Your task to perform on an android device: Clear all items from cart on target. Add "alienware aurora" to the cart on target, then select checkout. Image 0: 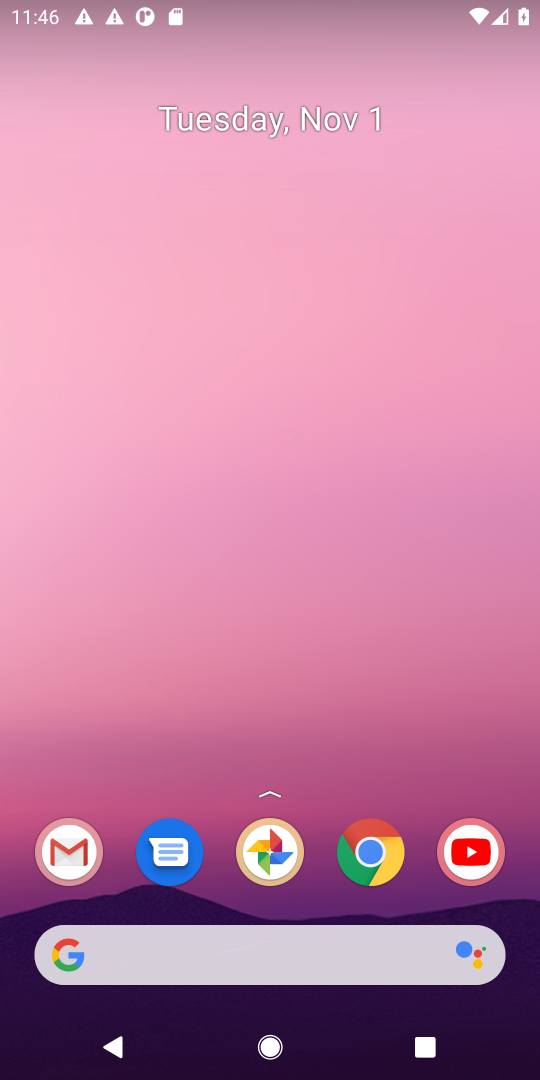
Step 0: click (67, 958)
Your task to perform on an android device: Clear all items from cart on target. Add "alienware aurora" to the cart on target, then select checkout. Image 1: 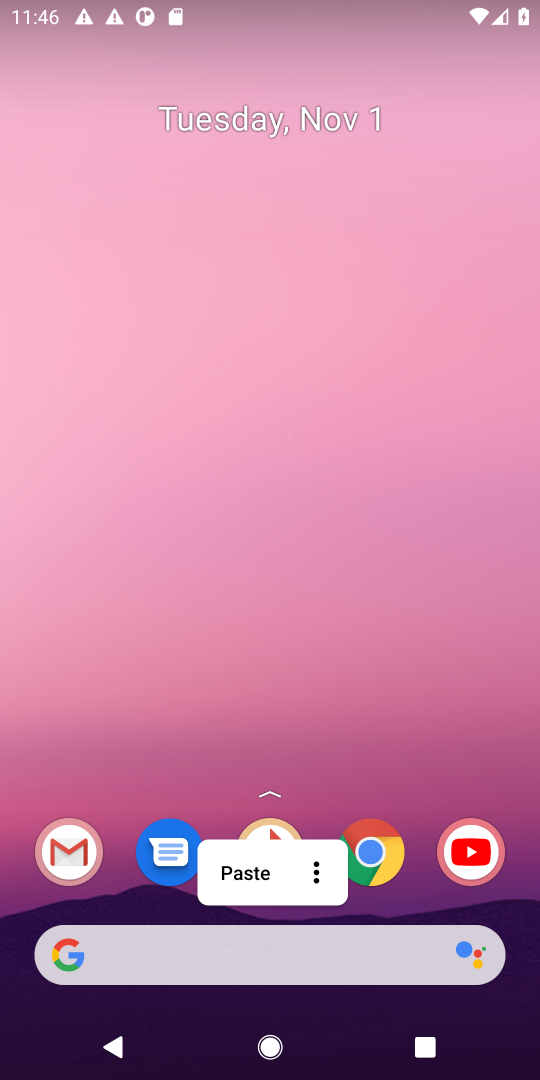
Step 1: click (55, 967)
Your task to perform on an android device: Clear all items from cart on target. Add "alienware aurora" to the cart on target, then select checkout. Image 2: 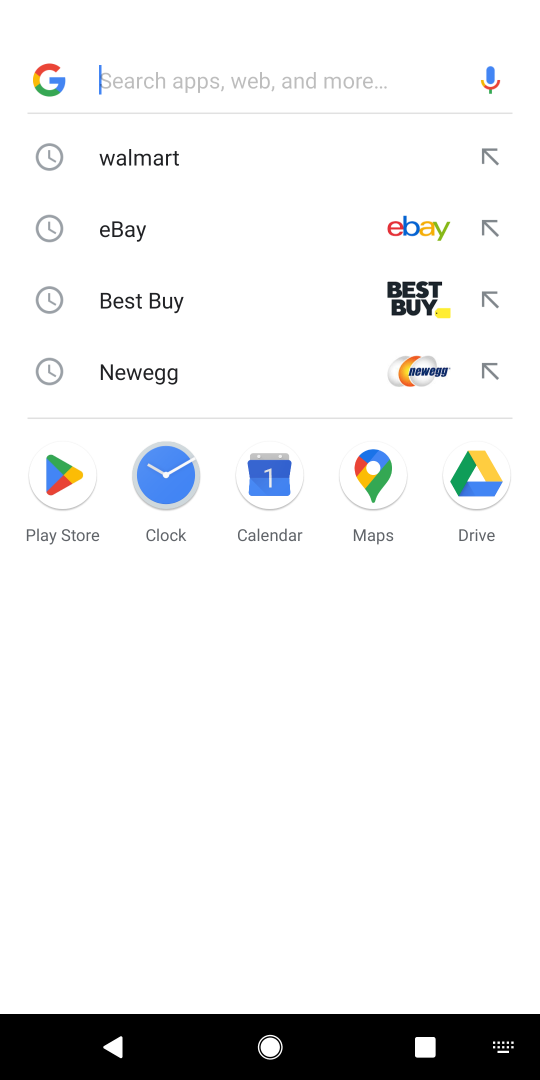
Step 2: type "target"
Your task to perform on an android device: Clear all items from cart on target. Add "alienware aurora" to the cart on target, then select checkout. Image 3: 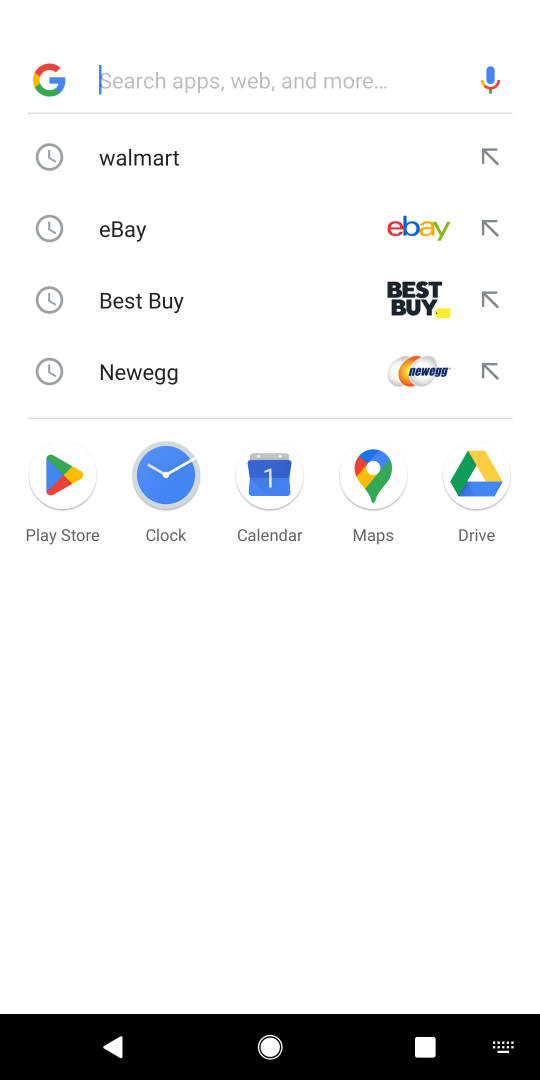
Step 3: click (120, 78)
Your task to perform on an android device: Clear all items from cart on target. Add "alienware aurora" to the cart on target, then select checkout. Image 4: 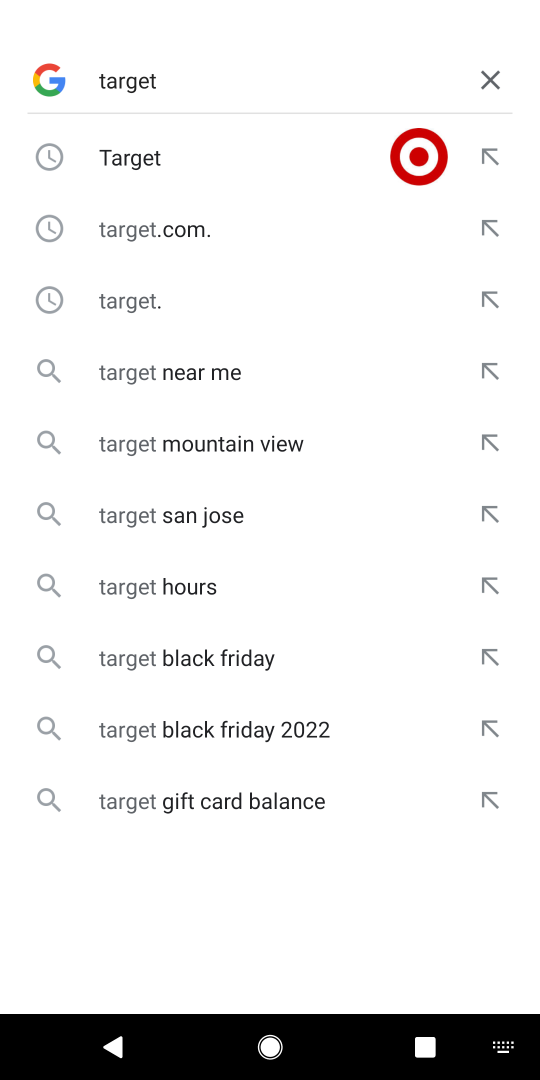
Step 4: click (128, 147)
Your task to perform on an android device: Clear all items from cart on target. Add "alienware aurora" to the cart on target, then select checkout. Image 5: 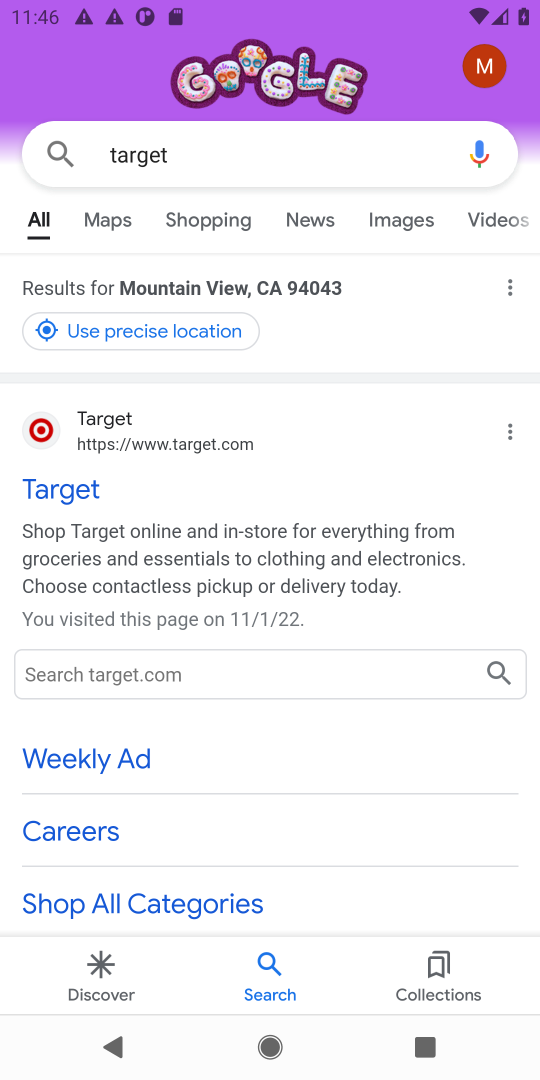
Step 5: click (190, 154)
Your task to perform on an android device: Clear all items from cart on target. Add "alienware aurora" to the cart on target, then select checkout. Image 6: 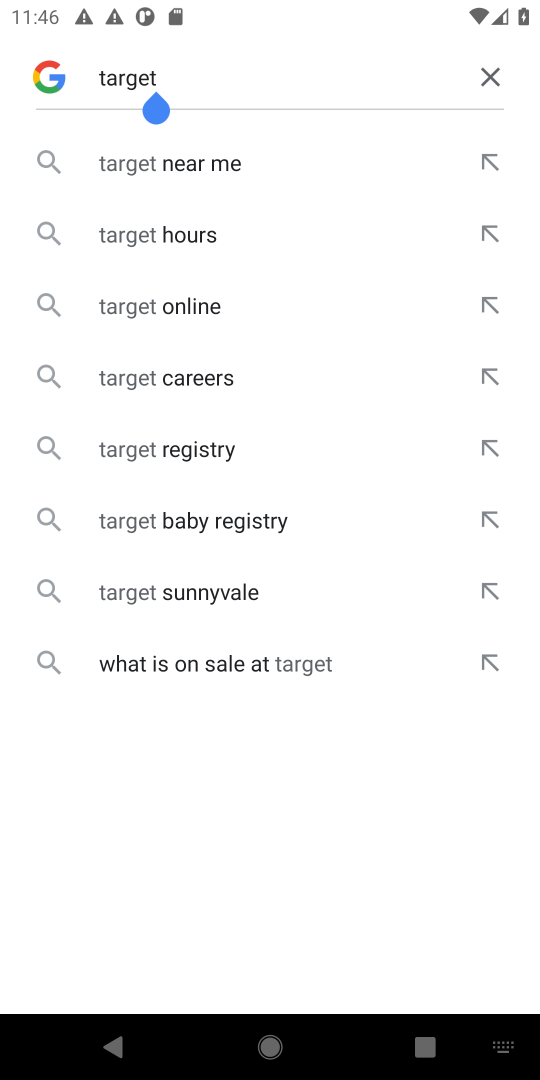
Step 6: click (494, 68)
Your task to perform on an android device: Clear all items from cart on target. Add "alienware aurora" to the cart on target, then select checkout. Image 7: 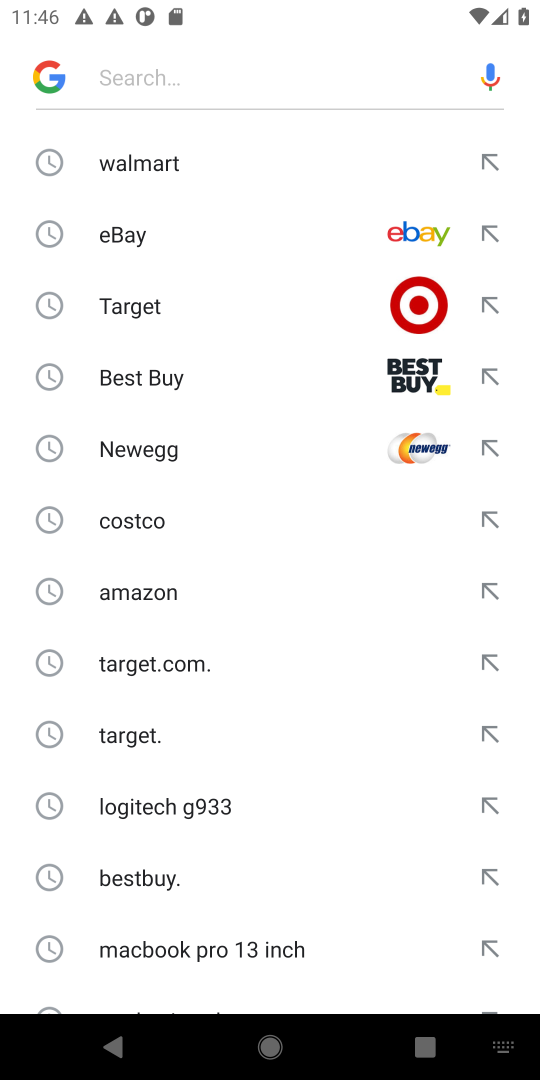
Step 7: type "alienware aurora"
Your task to perform on an android device: Clear all items from cart on target. Add "alienware aurora" to the cart on target, then select checkout. Image 8: 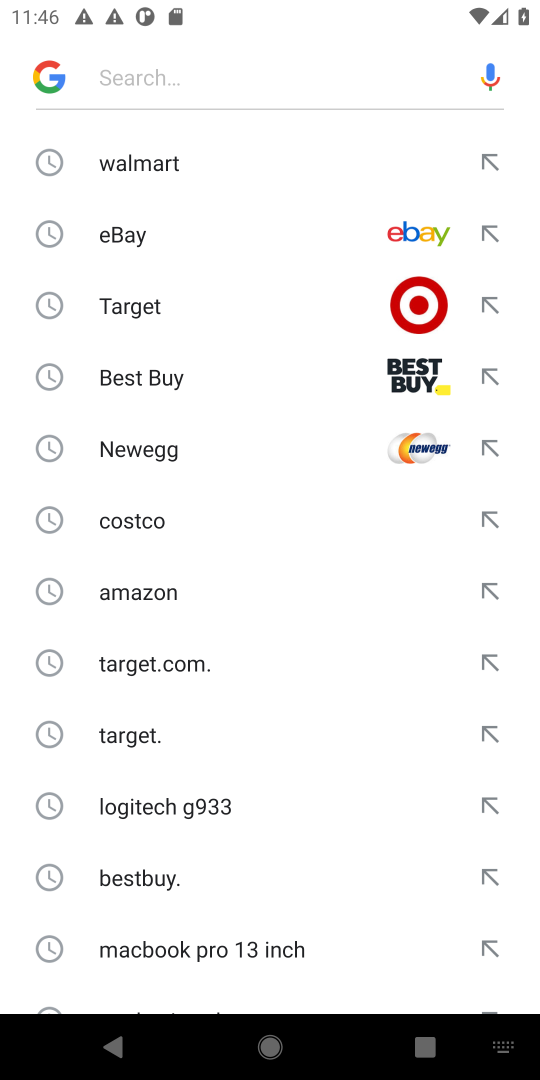
Step 8: click (130, 74)
Your task to perform on an android device: Clear all items from cart on target. Add "alienware aurora" to the cart on target, then select checkout. Image 9: 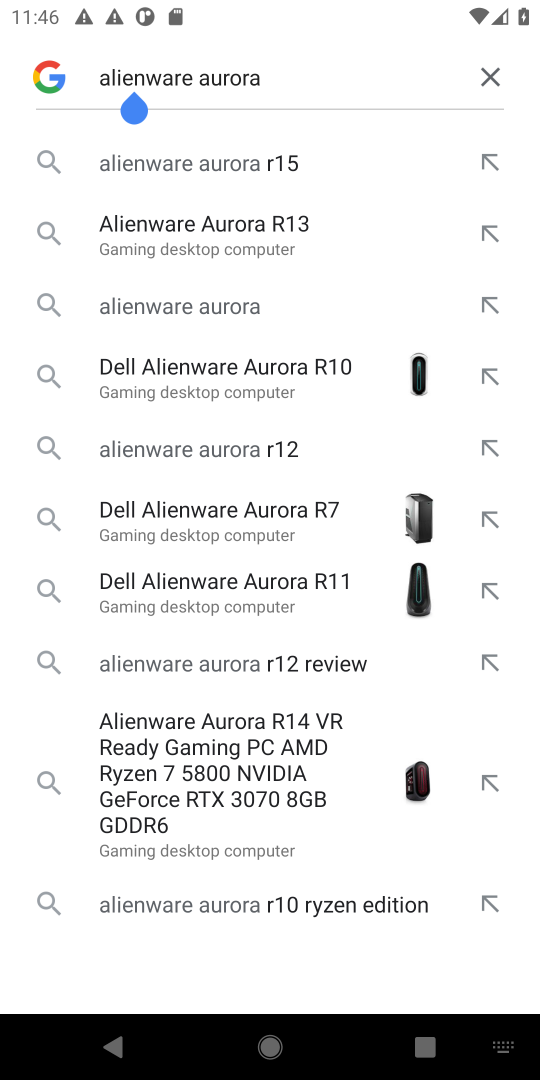
Step 9: press enter
Your task to perform on an android device: Clear all items from cart on target. Add "alienware aurora" to the cart on target, then select checkout. Image 10: 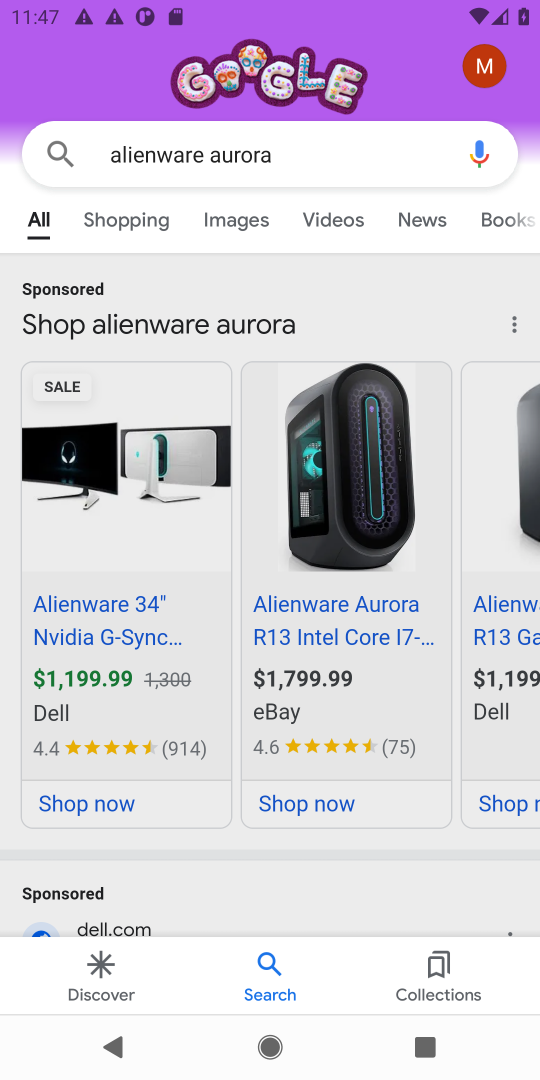
Step 10: press back button
Your task to perform on an android device: Clear all items from cart on target. Add "alienware aurora" to the cart on target, then select checkout. Image 11: 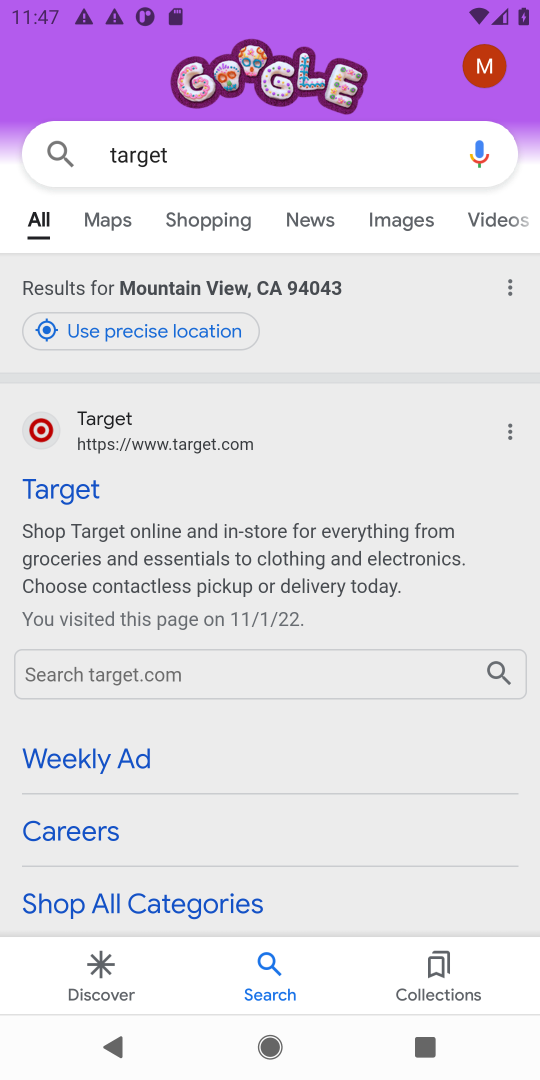
Step 11: click (85, 489)
Your task to perform on an android device: Clear all items from cart on target. Add "alienware aurora" to the cart on target, then select checkout. Image 12: 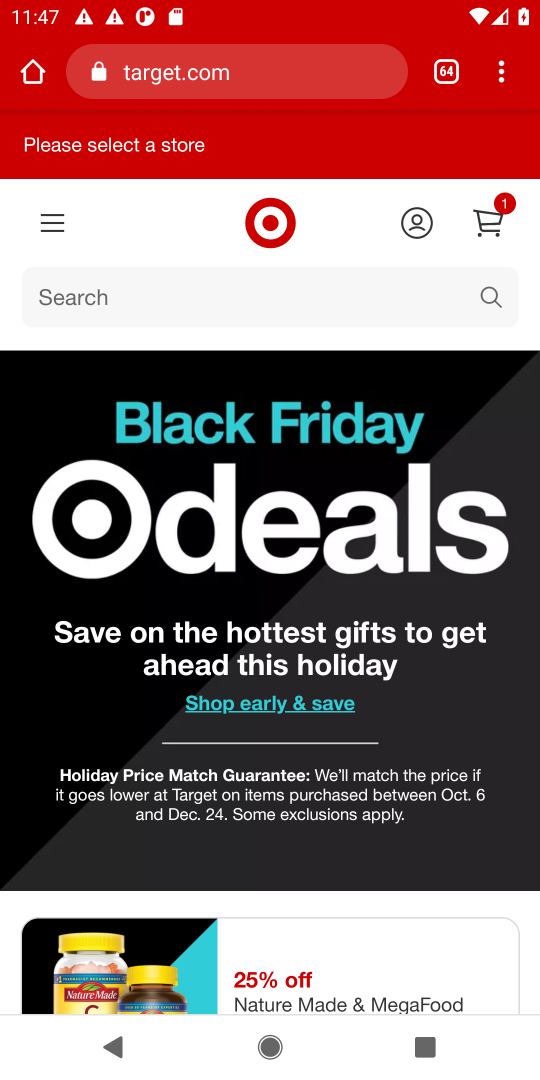
Step 12: click (124, 292)
Your task to perform on an android device: Clear all items from cart on target. Add "alienware aurora" to the cart on target, then select checkout. Image 13: 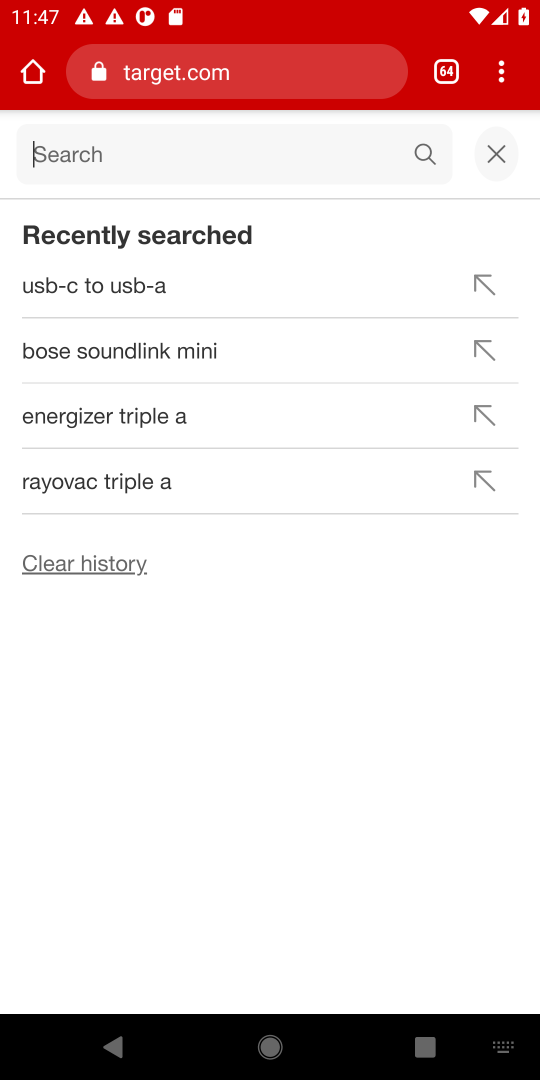
Step 13: type "alienware aurora"
Your task to perform on an android device: Clear all items from cart on target. Add "alienware aurora" to the cart on target, then select checkout. Image 14: 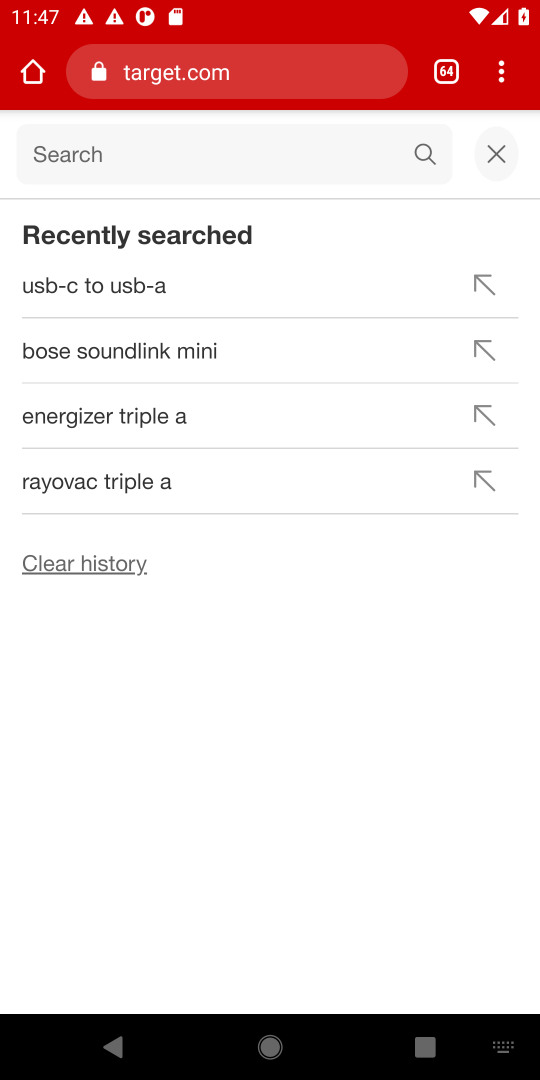
Step 14: click (92, 162)
Your task to perform on an android device: Clear all items from cart on target. Add "alienware aurora" to the cart on target, then select checkout. Image 15: 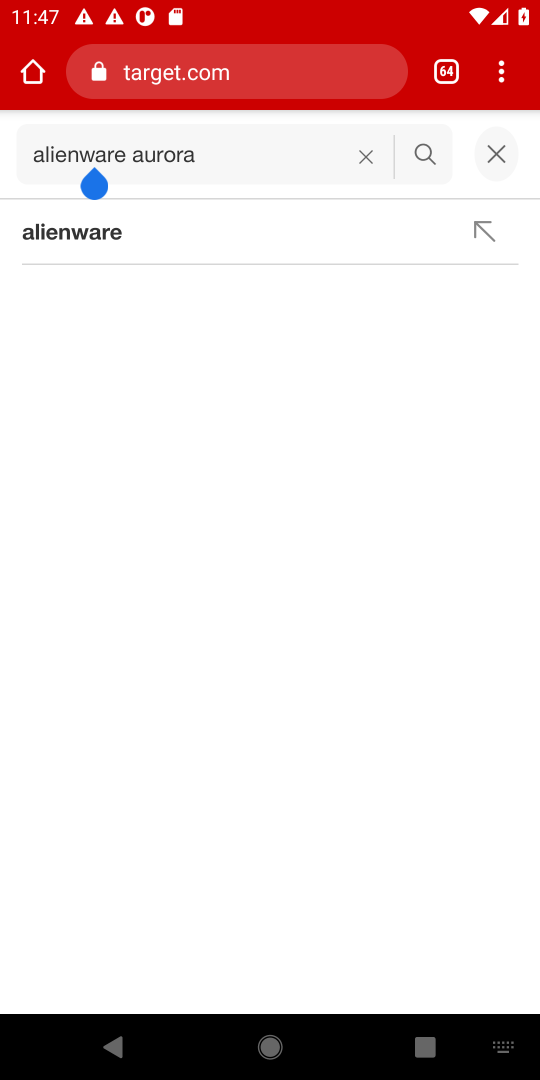
Step 15: press enter
Your task to perform on an android device: Clear all items from cart on target. Add "alienware aurora" to the cart on target, then select checkout. Image 16: 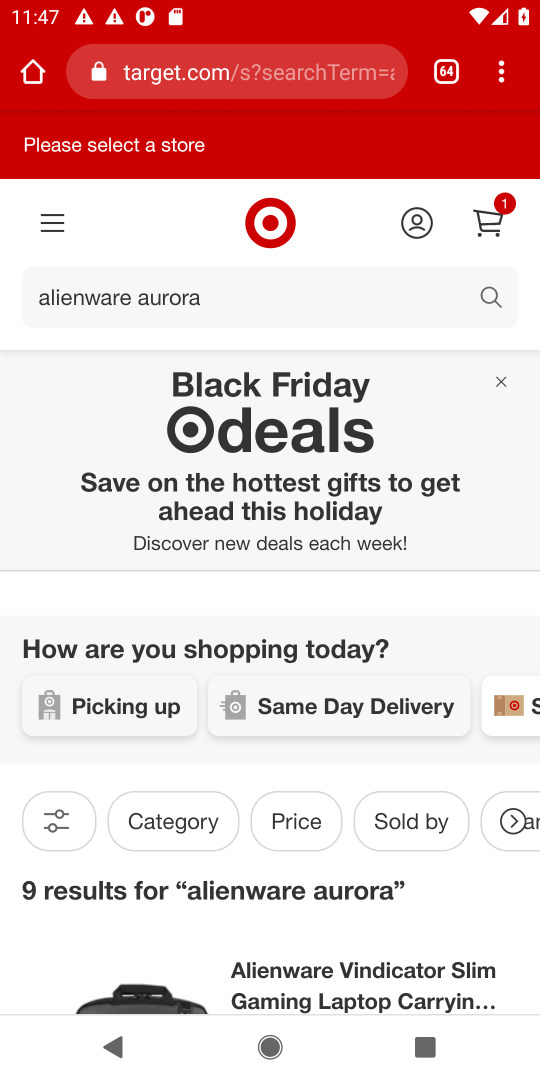
Step 16: click (493, 214)
Your task to perform on an android device: Clear all items from cart on target. Add "alienware aurora" to the cart on target, then select checkout. Image 17: 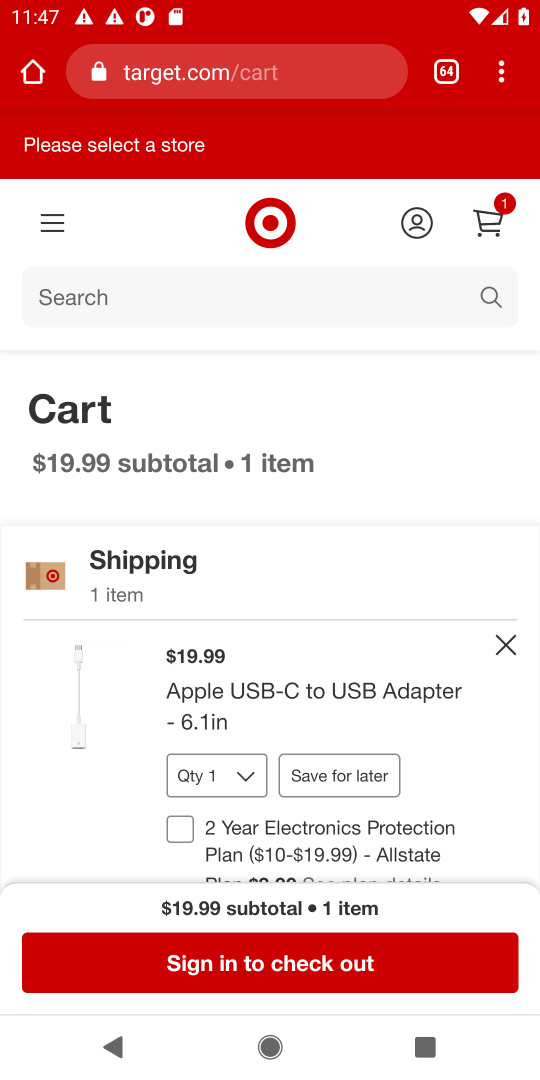
Step 17: click (498, 641)
Your task to perform on an android device: Clear all items from cart on target. Add "alienware aurora" to the cart on target, then select checkout. Image 18: 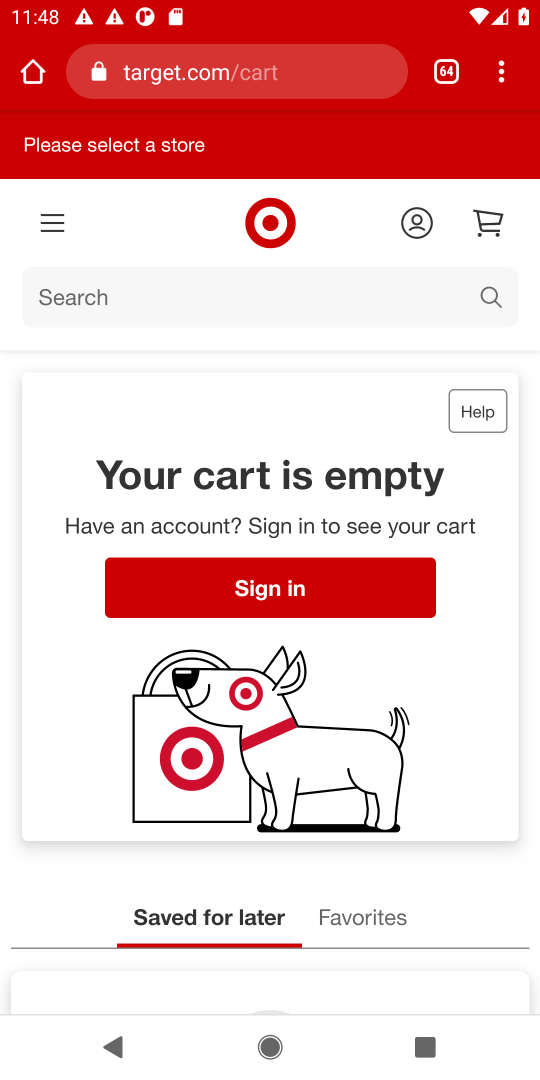
Step 18: click (90, 293)
Your task to perform on an android device: Clear all items from cart on target. Add "alienware aurora" to the cart on target, then select checkout. Image 19: 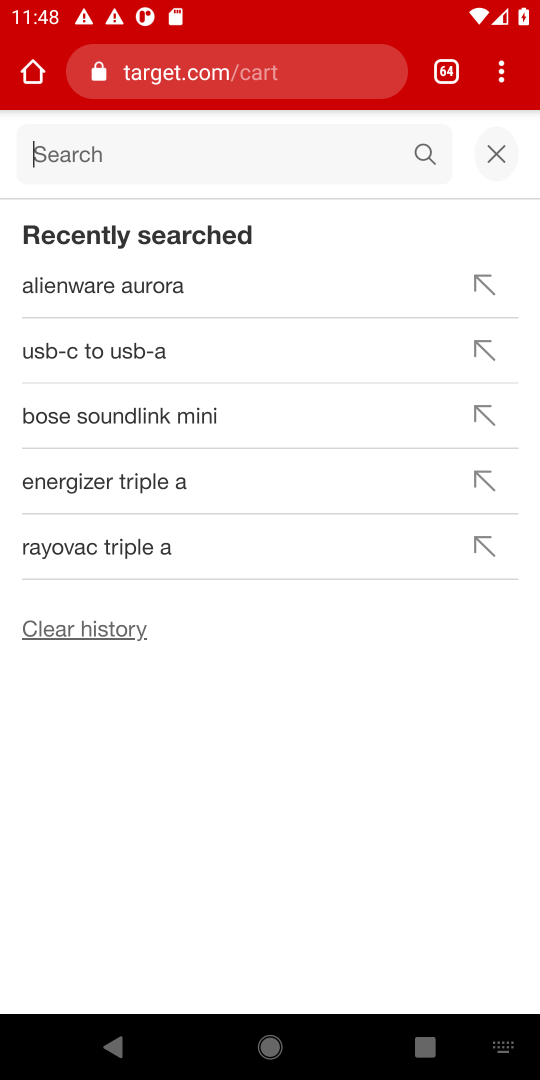
Step 19: type "alienware aurora"
Your task to perform on an android device: Clear all items from cart on target. Add "alienware aurora" to the cart on target, then select checkout. Image 20: 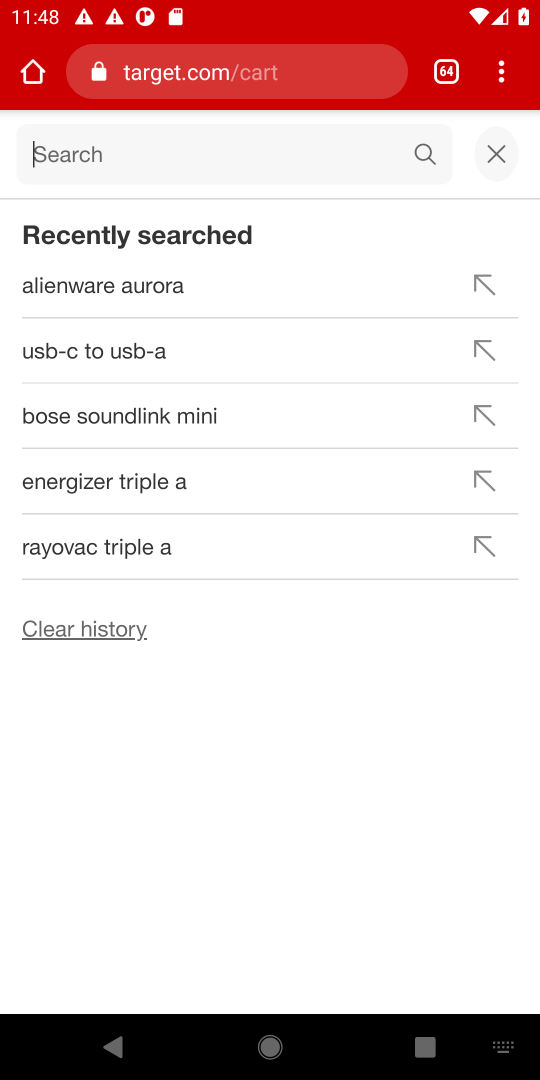
Step 20: click (70, 165)
Your task to perform on an android device: Clear all items from cart on target. Add "alienware aurora" to the cart on target, then select checkout. Image 21: 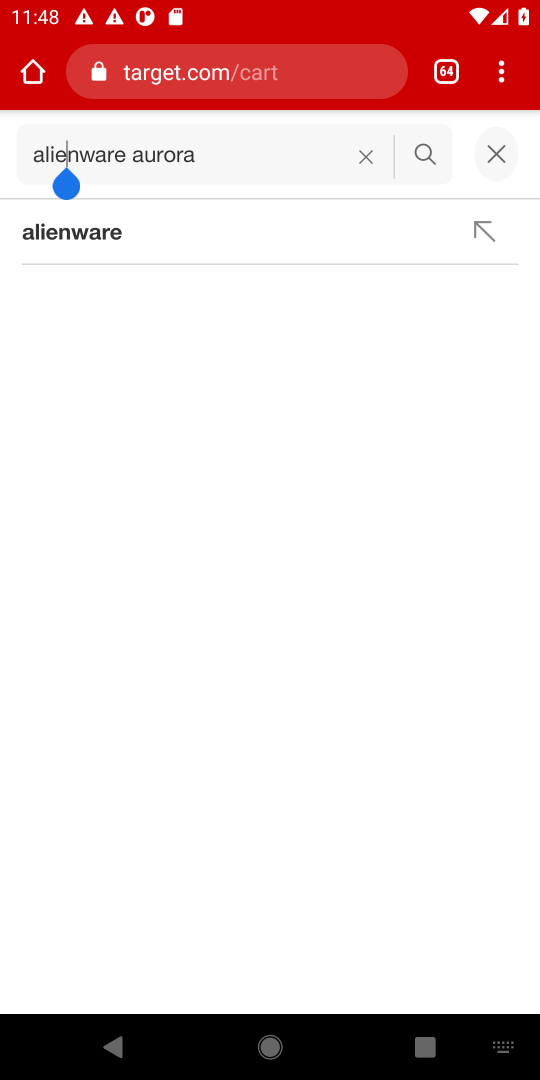
Step 21: press enter
Your task to perform on an android device: Clear all items from cart on target. Add "alienware aurora" to the cart on target, then select checkout. Image 22: 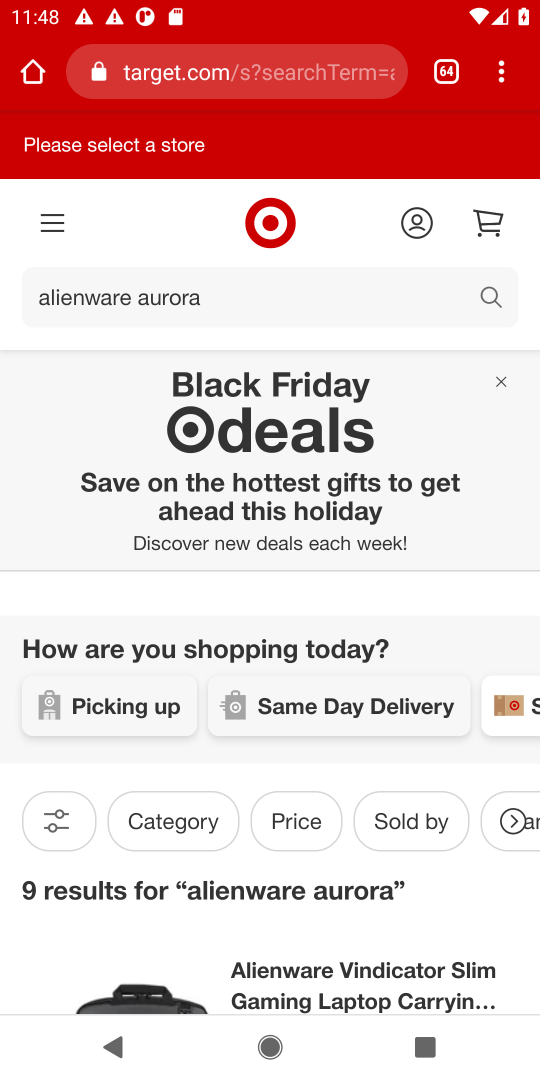
Step 22: task complete